Your task to perform on an android device: Go to Google Image 0: 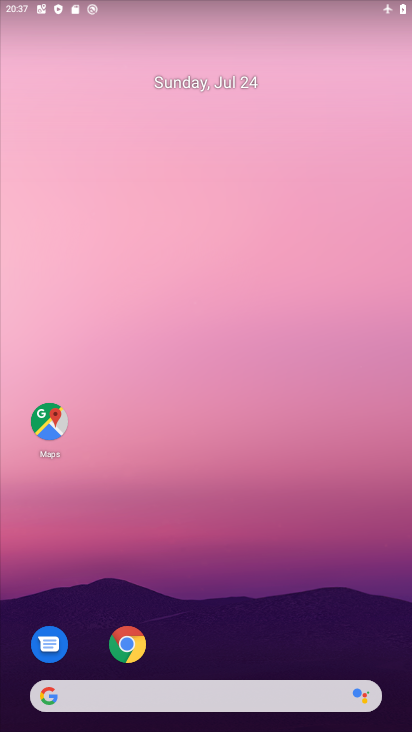
Step 0: click (127, 643)
Your task to perform on an android device: Go to Google Image 1: 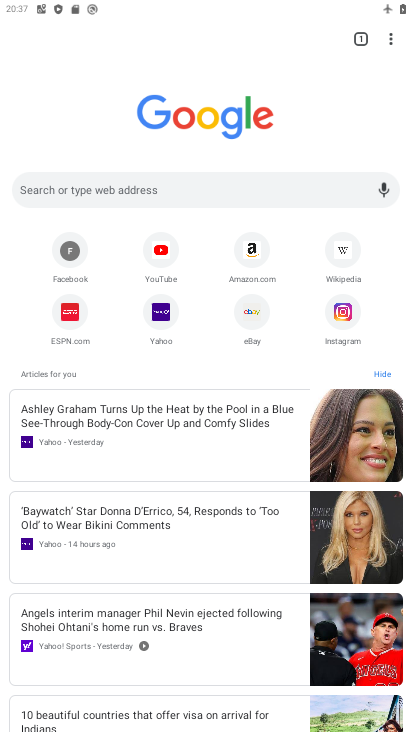
Step 1: task complete